Your task to perform on an android device: delete a single message in the gmail app Image 0: 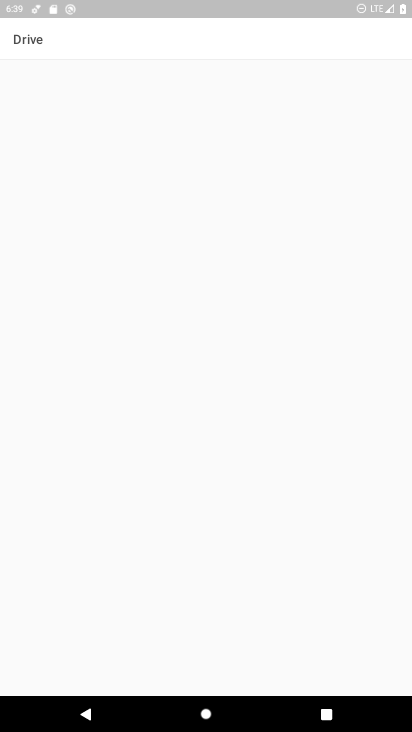
Step 0: press home button
Your task to perform on an android device: delete a single message in the gmail app Image 1: 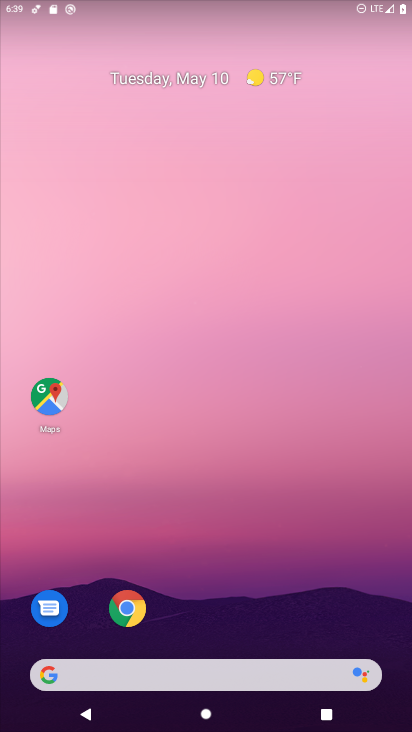
Step 1: drag from (351, 599) to (236, 0)
Your task to perform on an android device: delete a single message in the gmail app Image 2: 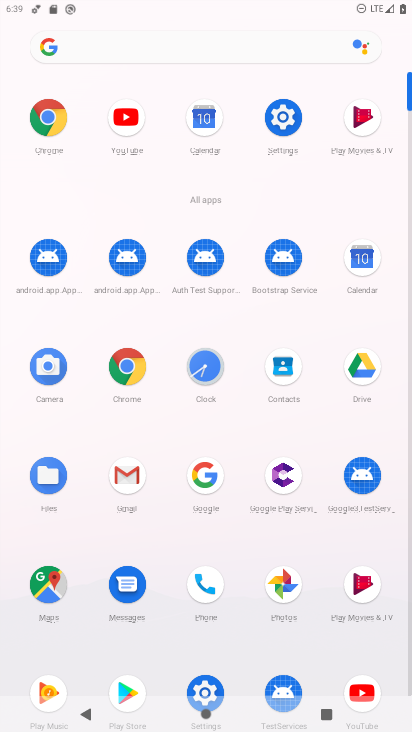
Step 2: click (117, 473)
Your task to perform on an android device: delete a single message in the gmail app Image 3: 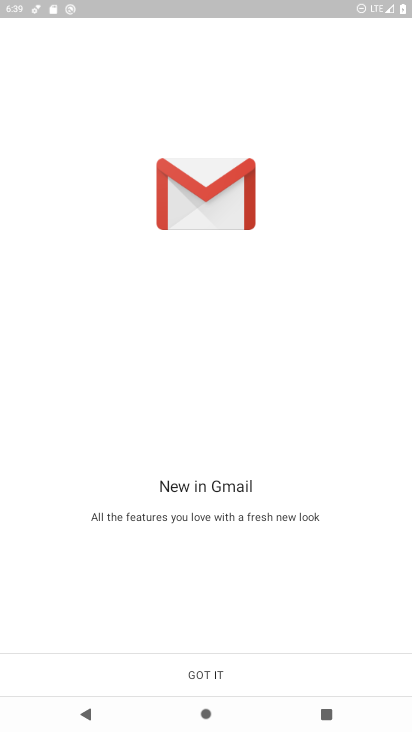
Step 3: click (223, 681)
Your task to perform on an android device: delete a single message in the gmail app Image 4: 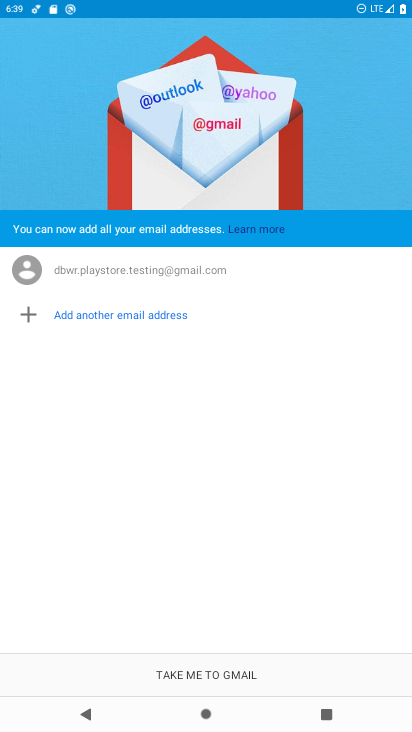
Step 4: click (223, 681)
Your task to perform on an android device: delete a single message in the gmail app Image 5: 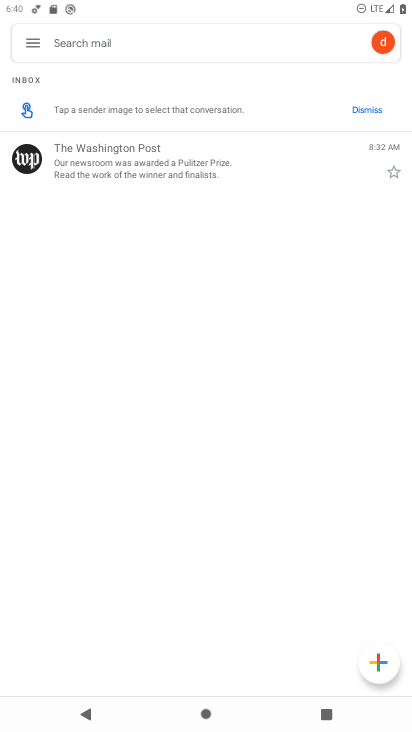
Step 5: click (138, 155)
Your task to perform on an android device: delete a single message in the gmail app Image 6: 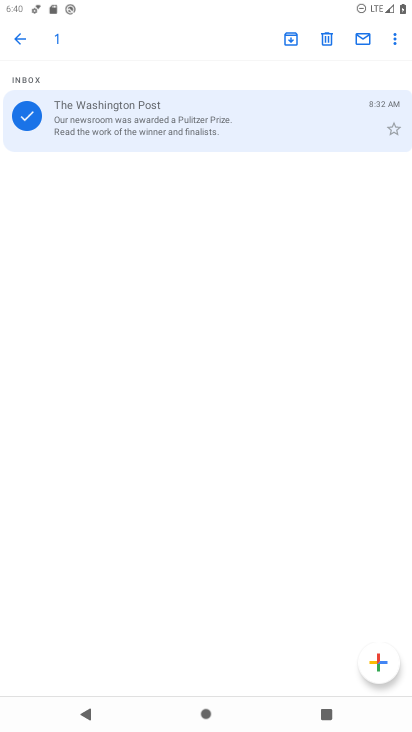
Step 6: click (325, 33)
Your task to perform on an android device: delete a single message in the gmail app Image 7: 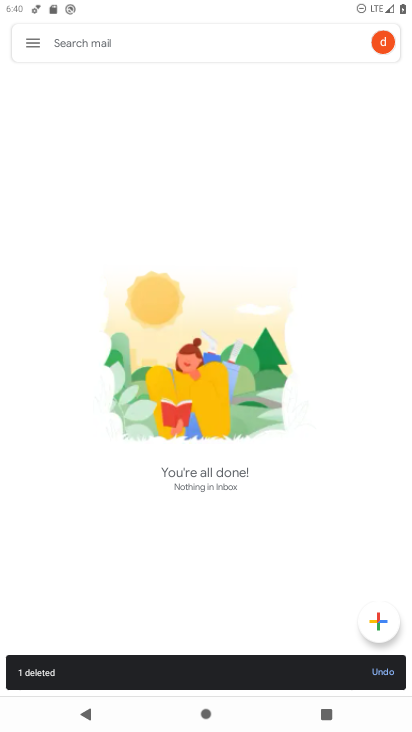
Step 7: task complete